Your task to perform on an android device: Open calendar and show me the third week of next month Image 0: 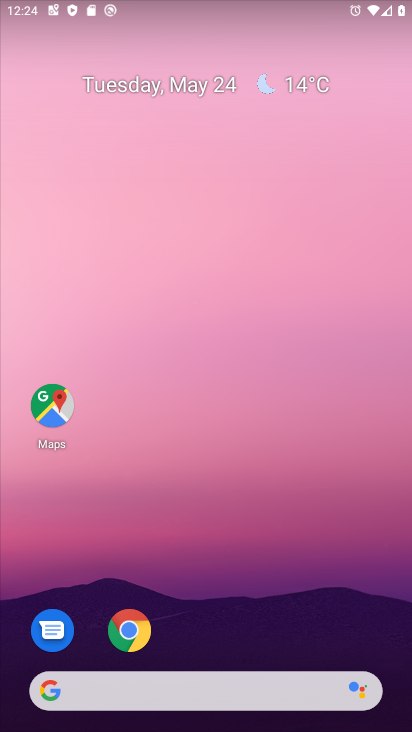
Step 0: drag from (342, 656) to (344, 159)
Your task to perform on an android device: Open calendar and show me the third week of next month Image 1: 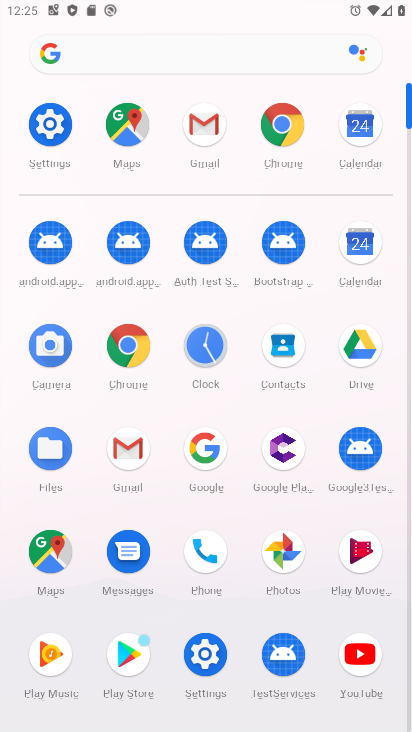
Step 1: click (359, 243)
Your task to perform on an android device: Open calendar and show me the third week of next month Image 2: 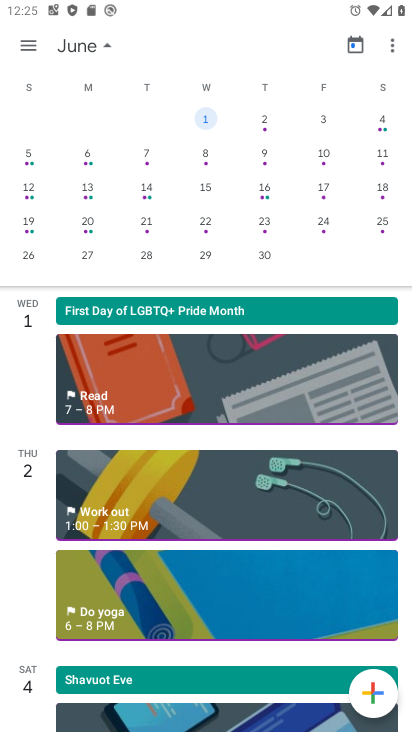
Step 2: click (30, 187)
Your task to perform on an android device: Open calendar and show me the third week of next month Image 3: 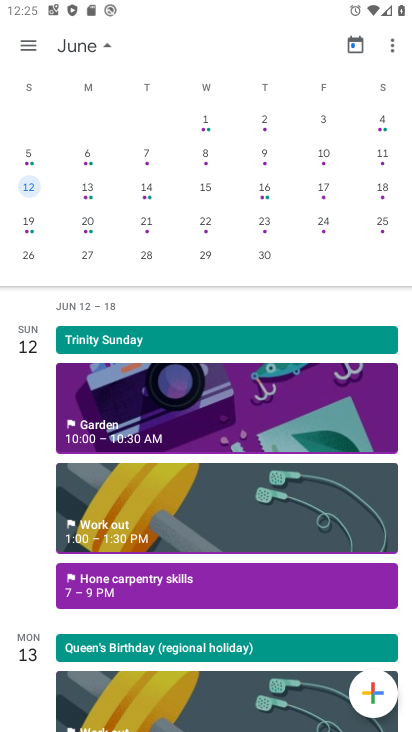
Step 3: task complete